Your task to perform on an android device: Go to Yahoo.com Image 0: 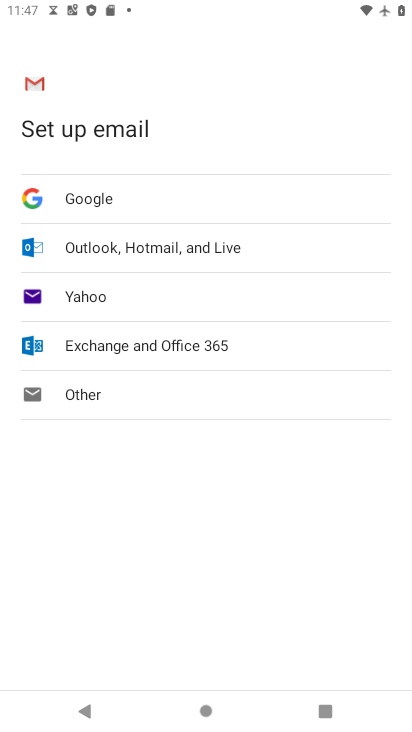
Step 0: press back button
Your task to perform on an android device: Go to Yahoo.com Image 1: 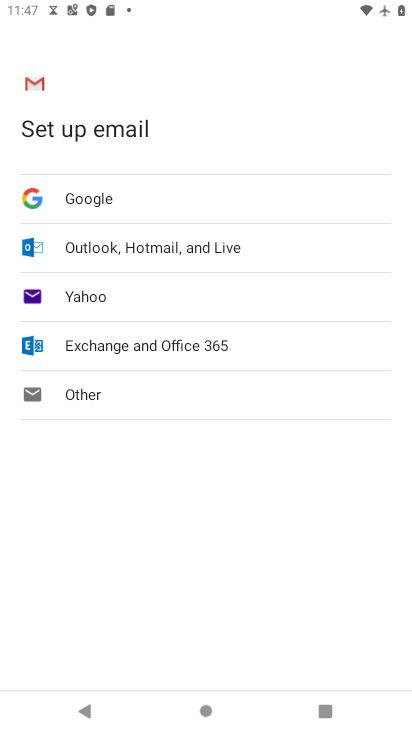
Step 1: press back button
Your task to perform on an android device: Go to Yahoo.com Image 2: 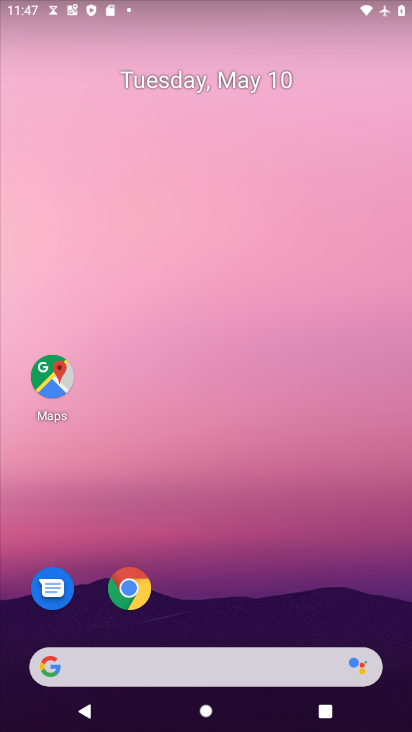
Step 2: press back button
Your task to perform on an android device: Go to Yahoo.com Image 3: 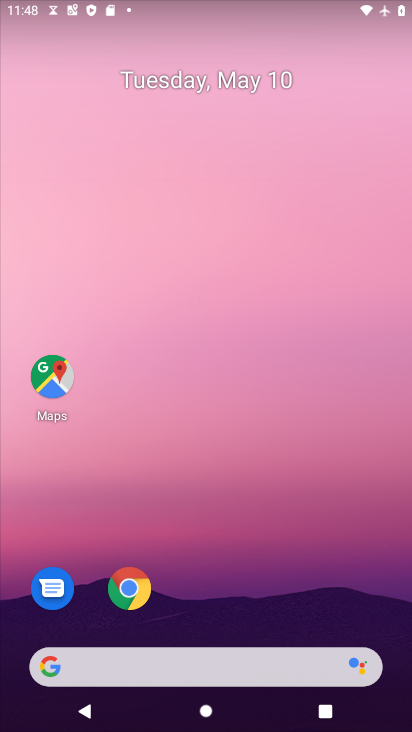
Step 3: drag from (294, 598) to (72, 54)
Your task to perform on an android device: Go to Yahoo.com Image 4: 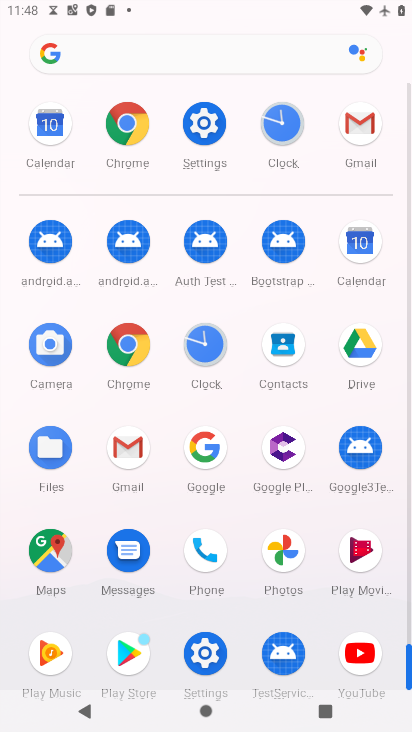
Step 4: click (131, 118)
Your task to perform on an android device: Go to Yahoo.com Image 5: 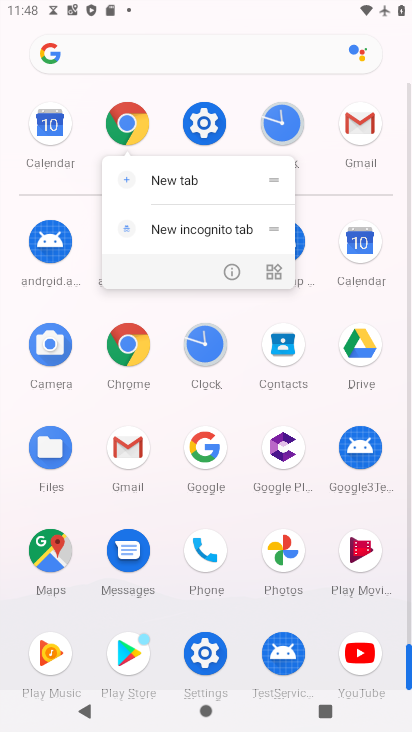
Step 5: click (130, 123)
Your task to perform on an android device: Go to Yahoo.com Image 6: 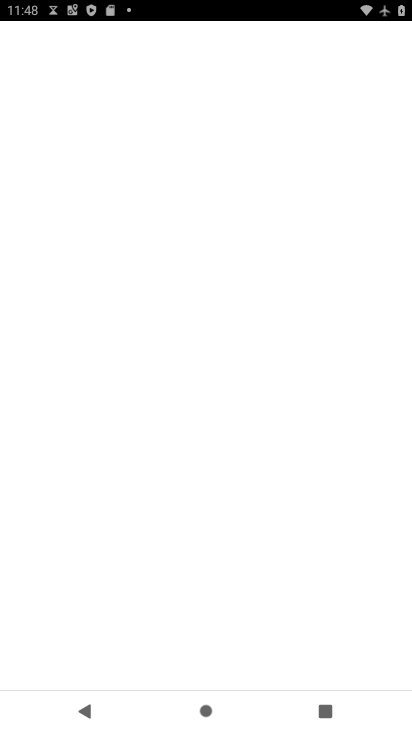
Step 6: click (130, 124)
Your task to perform on an android device: Go to Yahoo.com Image 7: 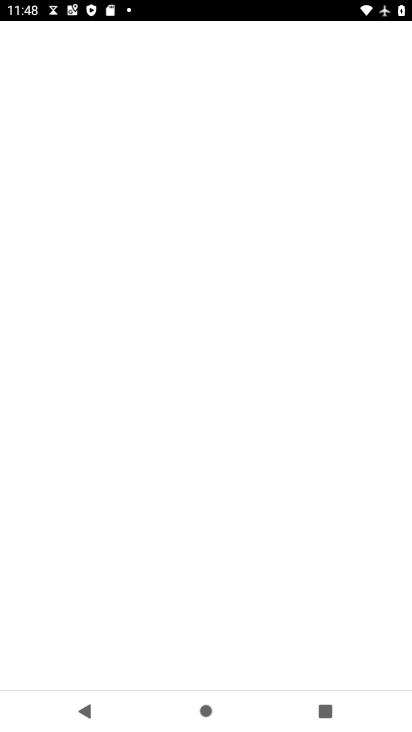
Step 7: click (131, 125)
Your task to perform on an android device: Go to Yahoo.com Image 8: 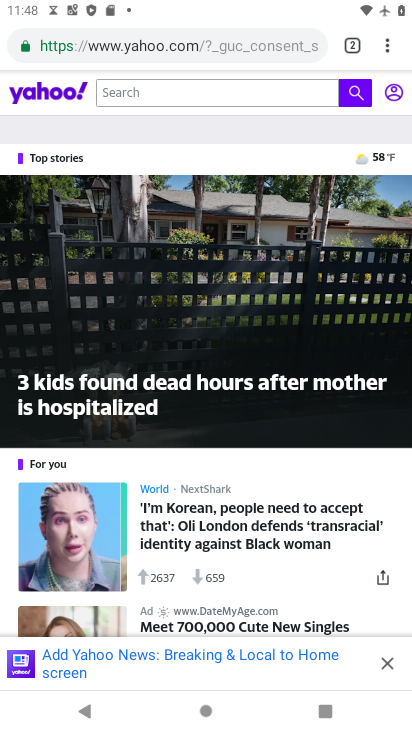
Step 8: task complete